Your task to perform on an android device: change the upload size in google photos Image 0: 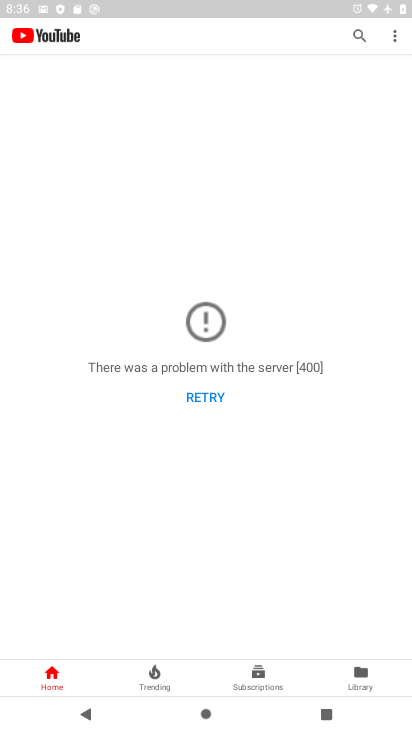
Step 0: press home button
Your task to perform on an android device: change the upload size in google photos Image 1: 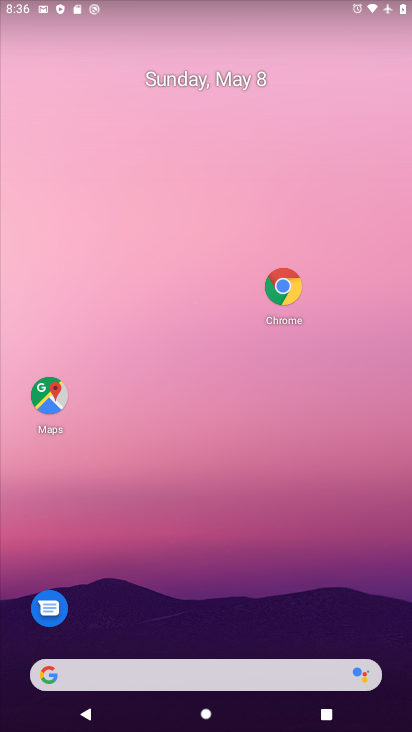
Step 1: drag from (212, 680) to (330, 89)
Your task to perform on an android device: change the upload size in google photos Image 2: 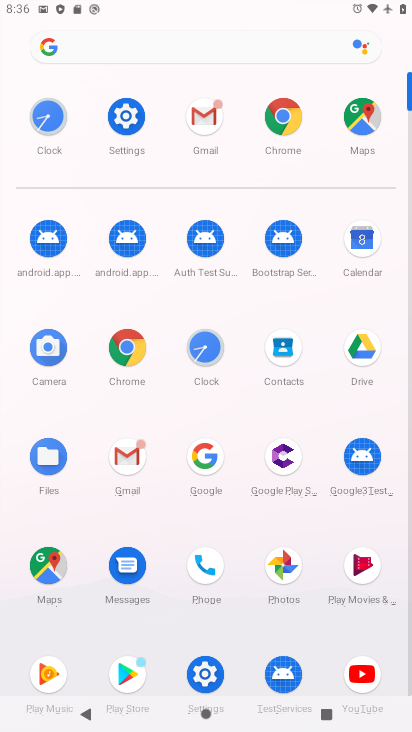
Step 2: click (282, 573)
Your task to perform on an android device: change the upload size in google photos Image 3: 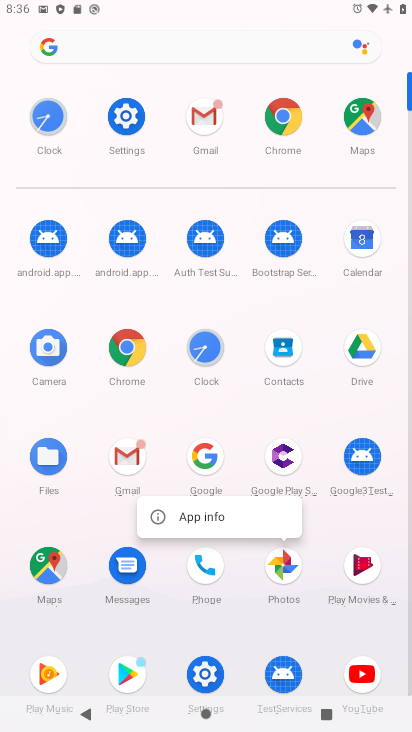
Step 3: click (284, 571)
Your task to perform on an android device: change the upload size in google photos Image 4: 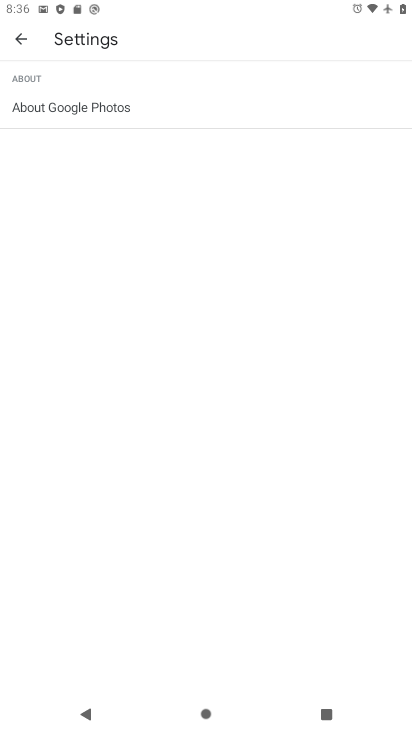
Step 4: click (17, 38)
Your task to perform on an android device: change the upload size in google photos Image 5: 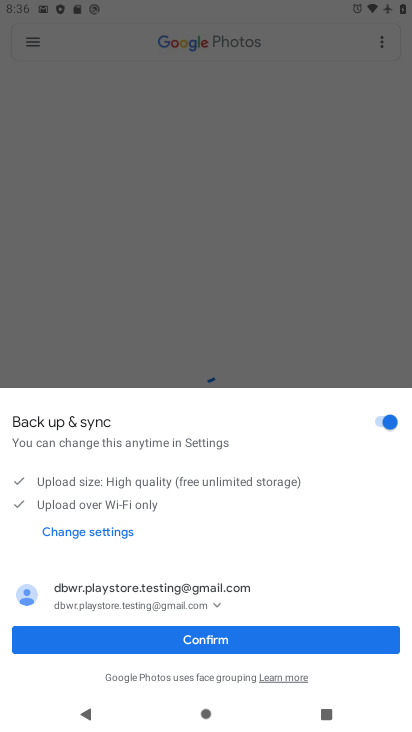
Step 5: click (200, 643)
Your task to perform on an android device: change the upload size in google photos Image 6: 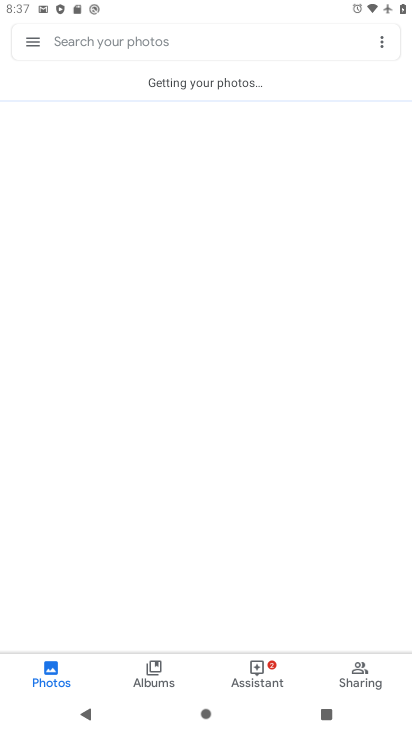
Step 6: click (33, 38)
Your task to perform on an android device: change the upload size in google photos Image 7: 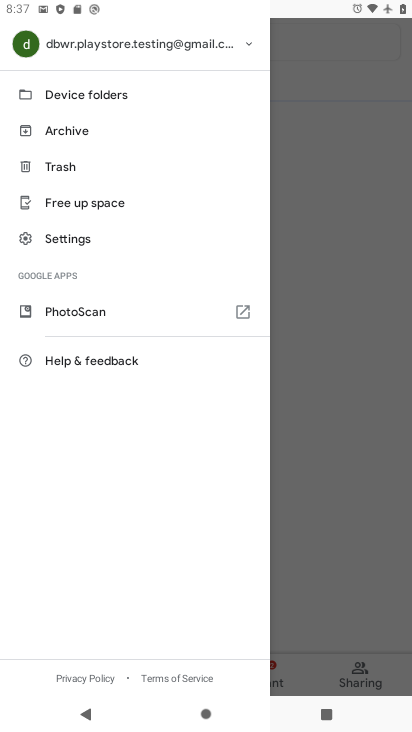
Step 7: click (78, 239)
Your task to perform on an android device: change the upload size in google photos Image 8: 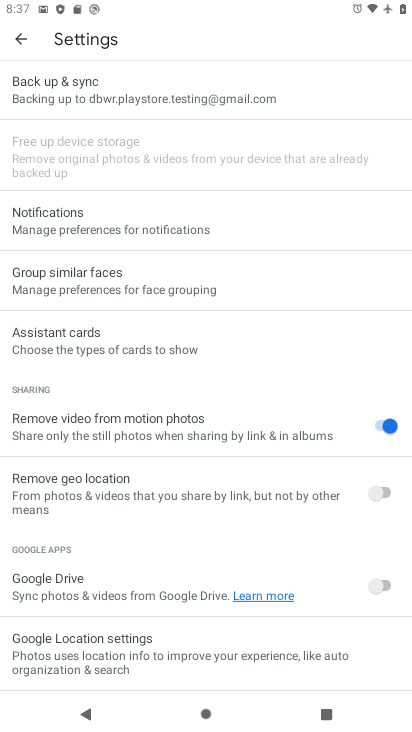
Step 8: click (104, 96)
Your task to perform on an android device: change the upload size in google photos Image 9: 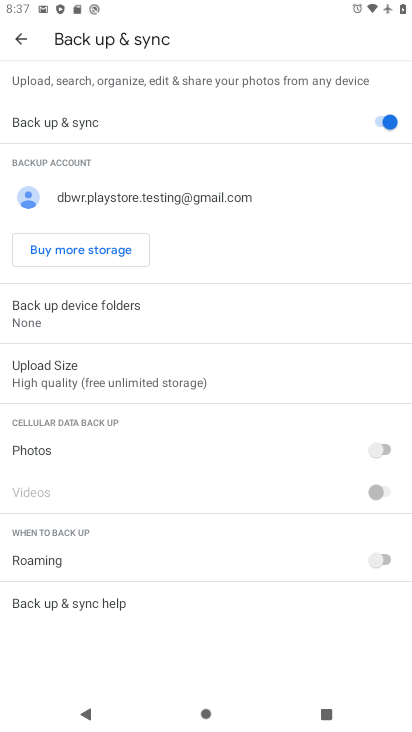
Step 9: click (119, 378)
Your task to perform on an android device: change the upload size in google photos Image 10: 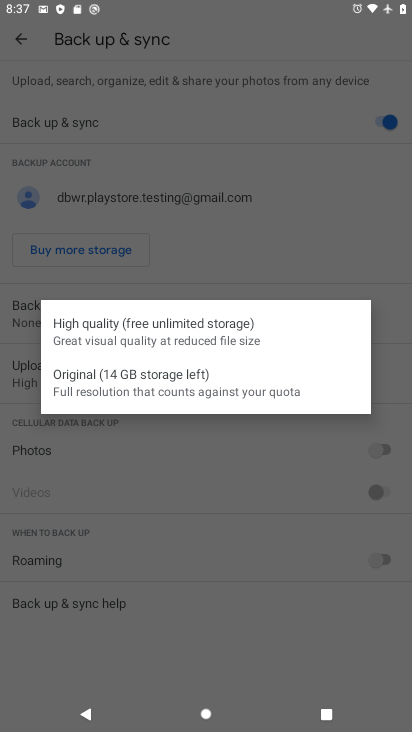
Step 10: click (116, 378)
Your task to perform on an android device: change the upload size in google photos Image 11: 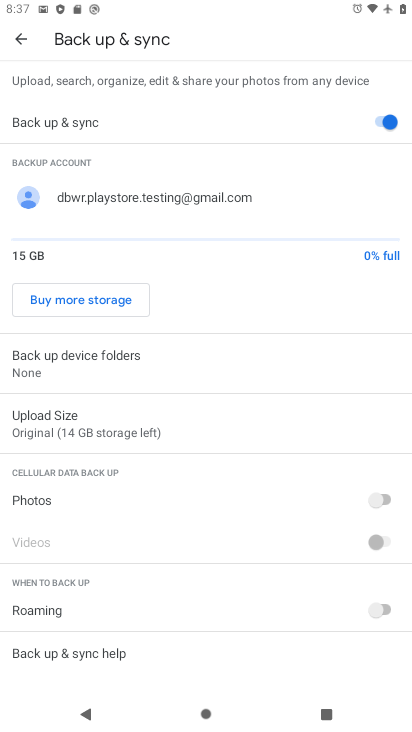
Step 11: task complete